Your task to perform on an android device: open app "Messages" Image 0: 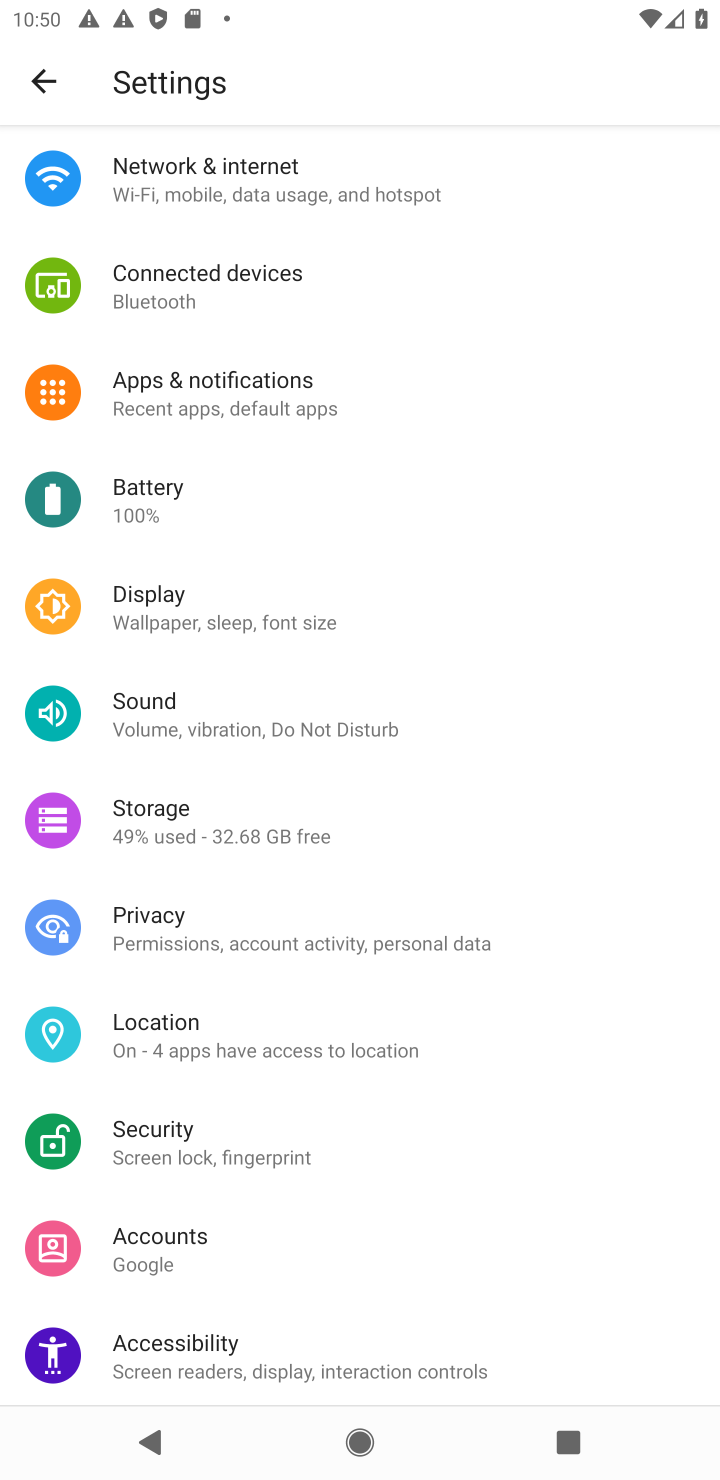
Step 0: press home button
Your task to perform on an android device: open app "Messages" Image 1: 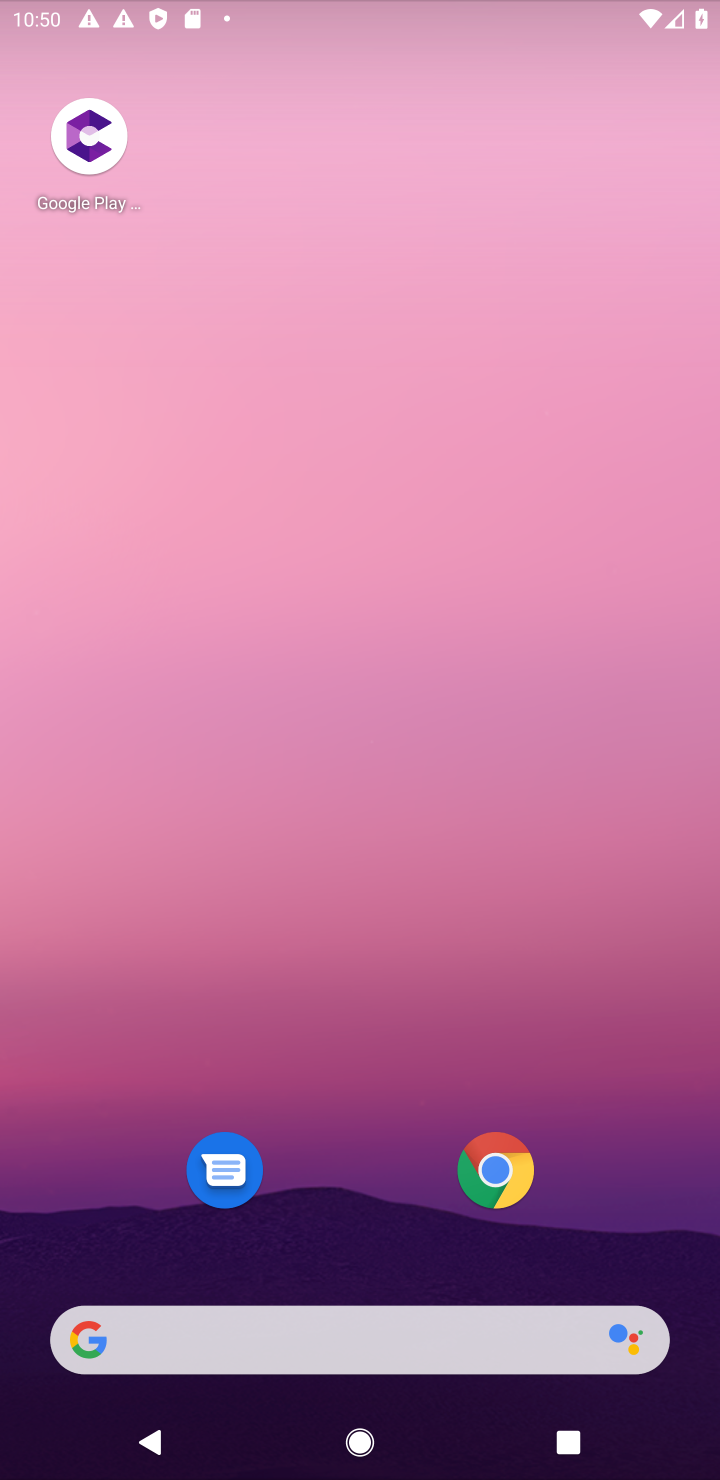
Step 1: drag from (307, 1368) to (371, 121)
Your task to perform on an android device: open app "Messages" Image 2: 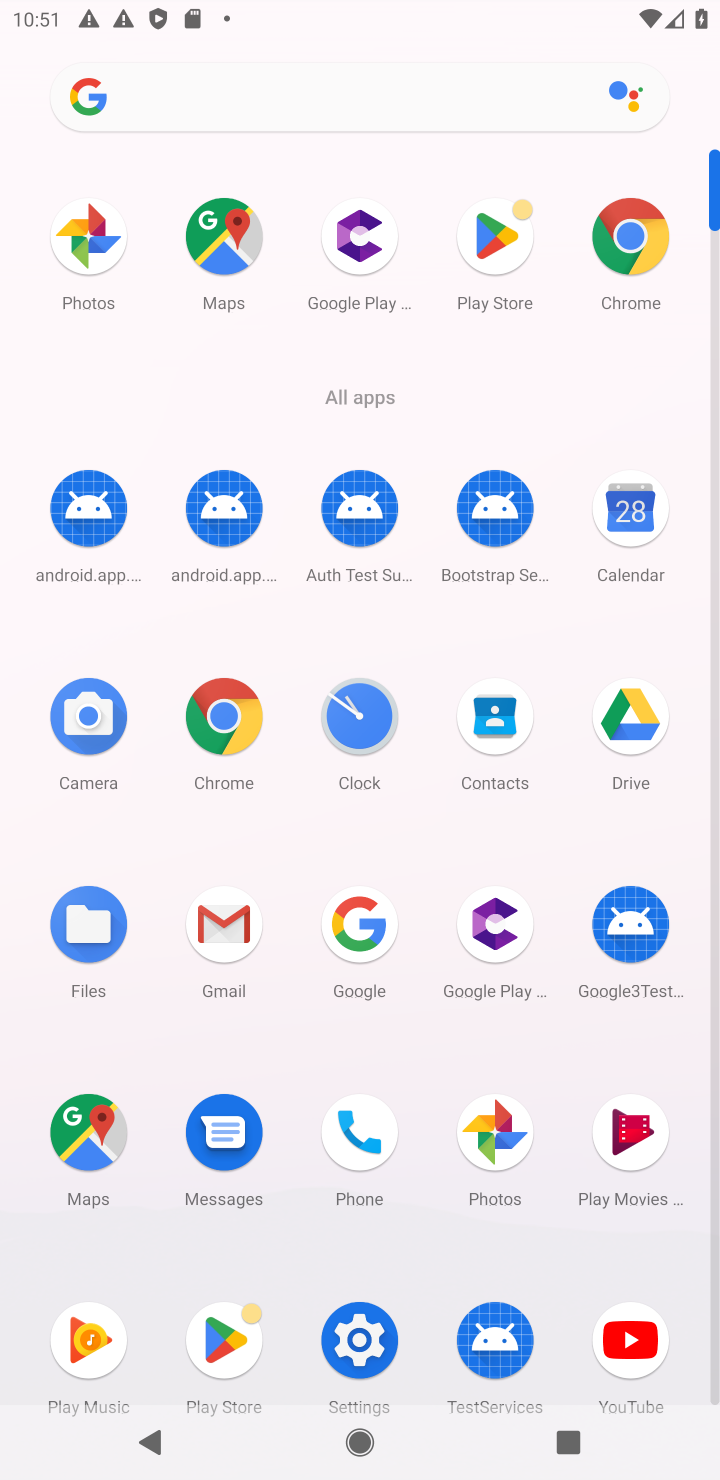
Step 2: click (238, 1138)
Your task to perform on an android device: open app "Messages" Image 3: 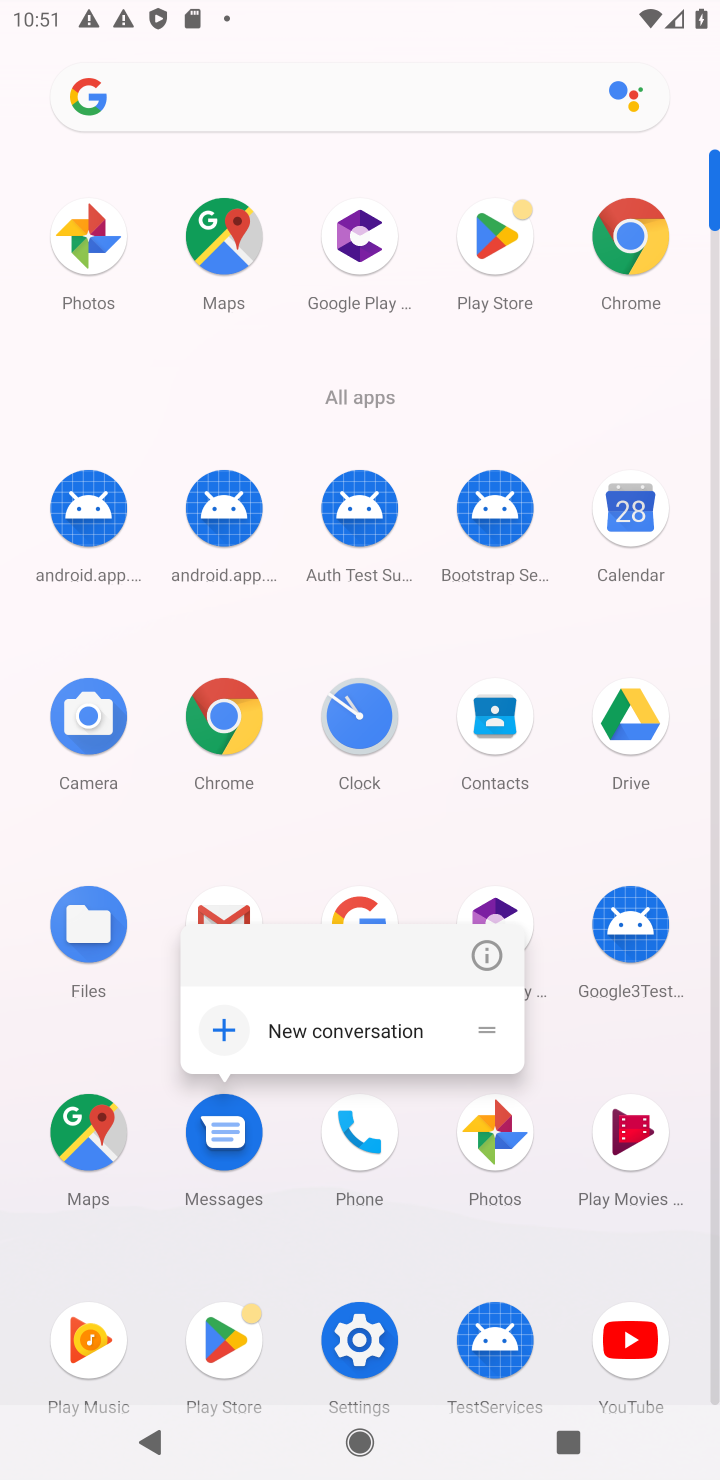
Step 3: click (238, 1138)
Your task to perform on an android device: open app "Messages" Image 4: 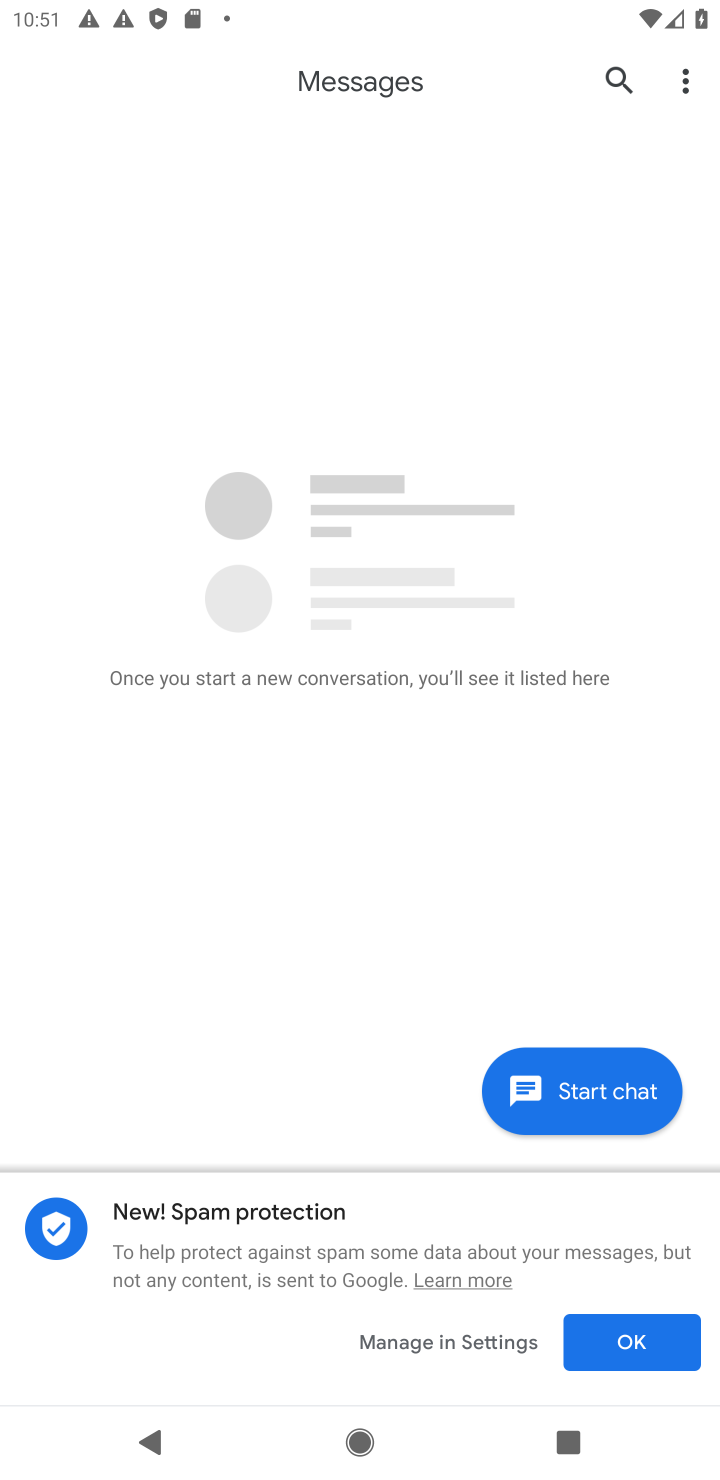
Step 4: task complete